Your task to perform on an android device: delete a single message in the gmail app Image 0: 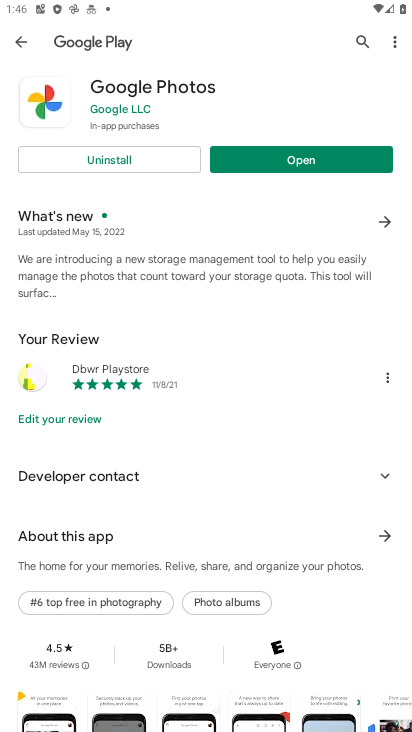
Step 0: press home button
Your task to perform on an android device: delete a single message in the gmail app Image 1: 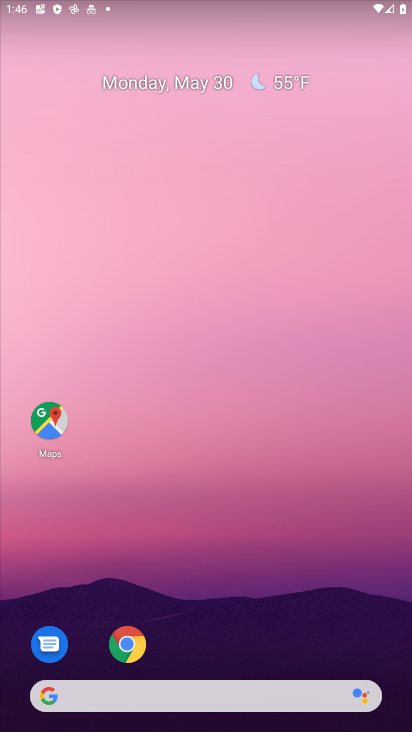
Step 1: drag from (278, 622) to (247, 197)
Your task to perform on an android device: delete a single message in the gmail app Image 2: 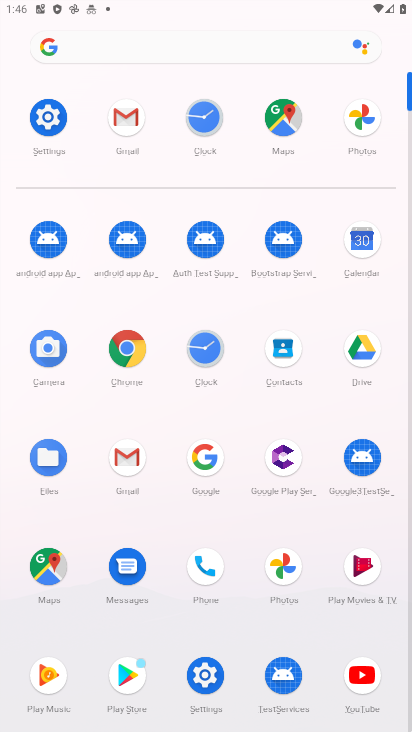
Step 2: click (120, 472)
Your task to perform on an android device: delete a single message in the gmail app Image 3: 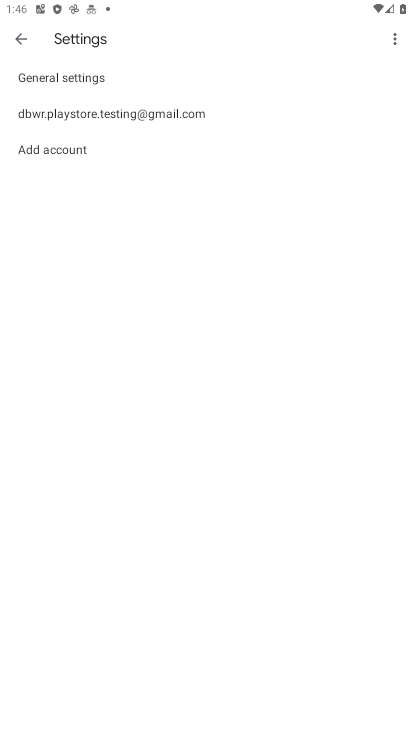
Step 3: task complete